Your task to perform on an android device: read, delete, or share a saved page in the chrome app Image 0: 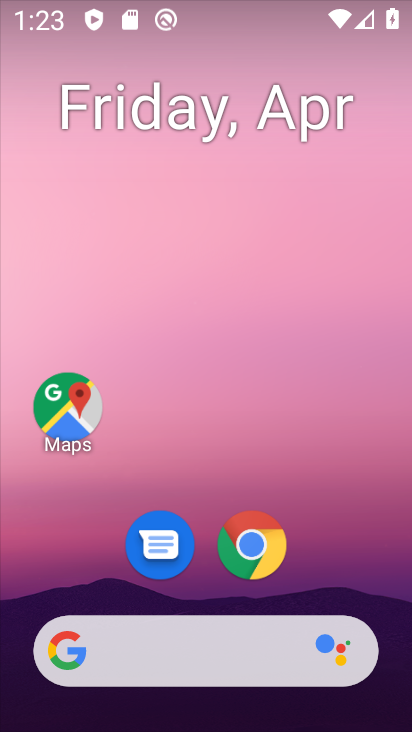
Step 0: drag from (356, 540) to (291, 128)
Your task to perform on an android device: read, delete, or share a saved page in the chrome app Image 1: 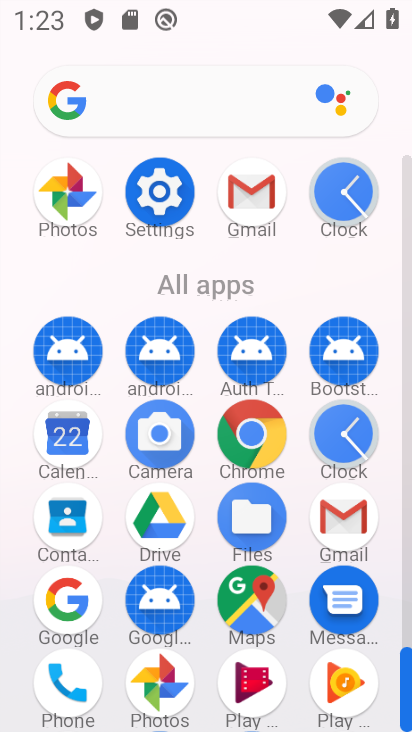
Step 1: click (266, 426)
Your task to perform on an android device: read, delete, or share a saved page in the chrome app Image 2: 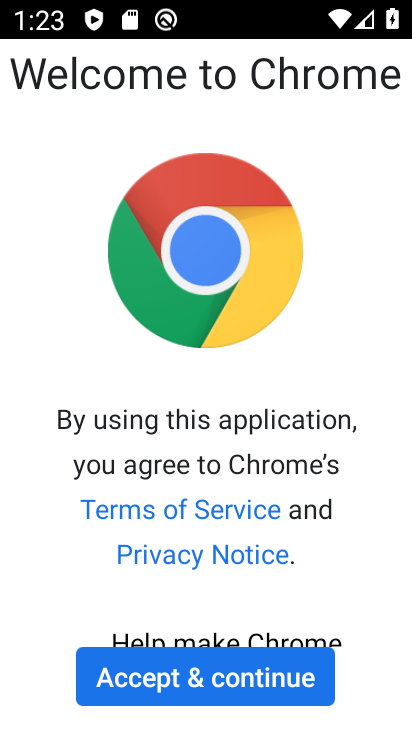
Step 2: click (284, 661)
Your task to perform on an android device: read, delete, or share a saved page in the chrome app Image 3: 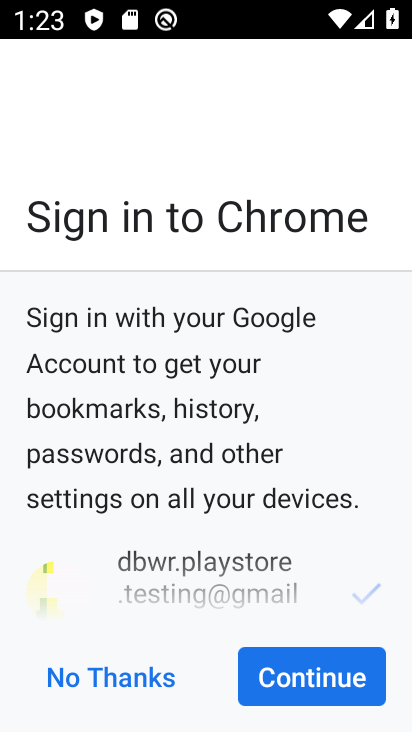
Step 3: click (287, 663)
Your task to perform on an android device: read, delete, or share a saved page in the chrome app Image 4: 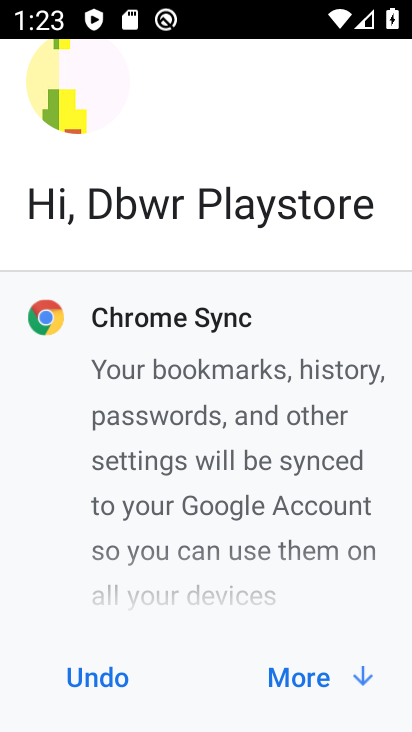
Step 4: click (287, 663)
Your task to perform on an android device: read, delete, or share a saved page in the chrome app Image 5: 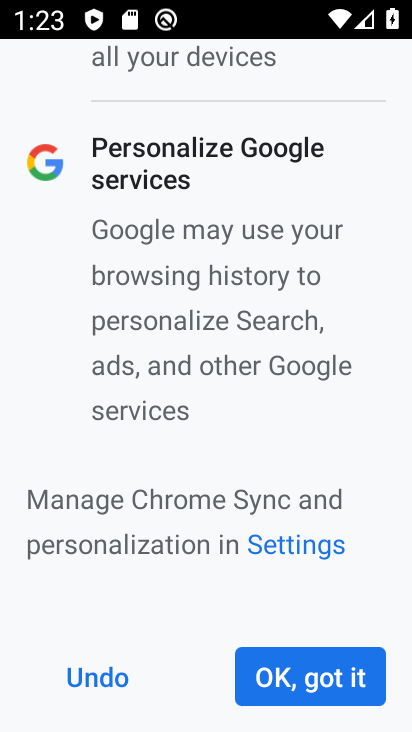
Step 5: click (287, 663)
Your task to perform on an android device: read, delete, or share a saved page in the chrome app Image 6: 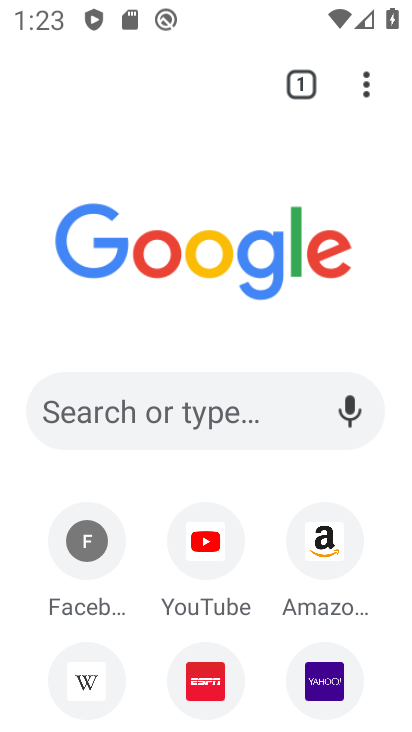
Step 6: click (202, 415)
Your task to perform on an android device: read, delete, or share a saved page in the chrome app Image 7: 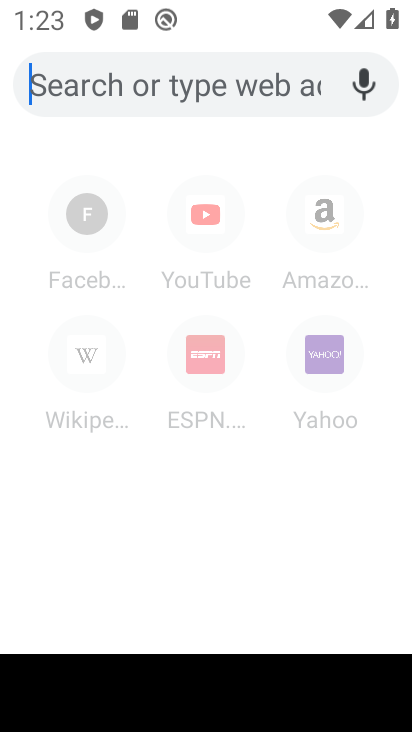
Step 7: click (205, 439)
Your task to perform on an android device: read, delete, or share a saved page in the chrome app Image 8: 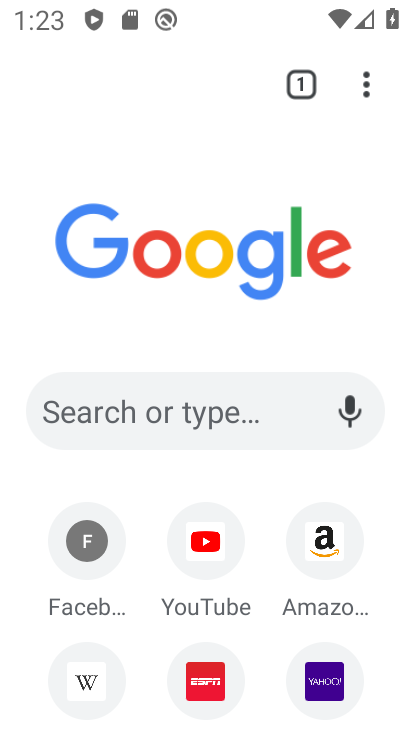
Step 8: task complete